Your task to perform on an android device: turn pop-ups off in chrome Image 0: 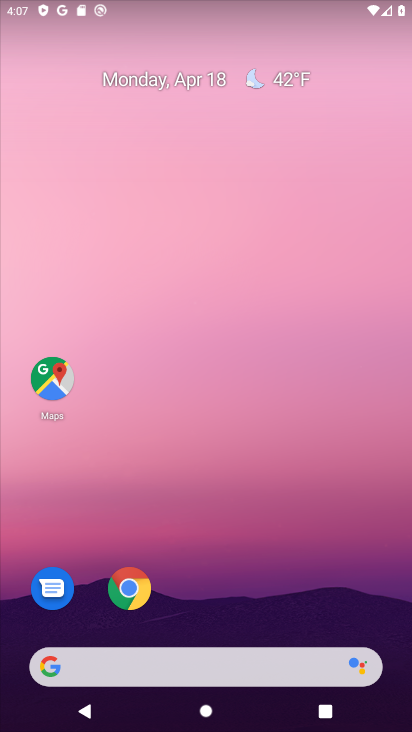
Step 0: click (125, 610)
Your task to perform on an android device: turn pop-ups off in chrome Image 1: 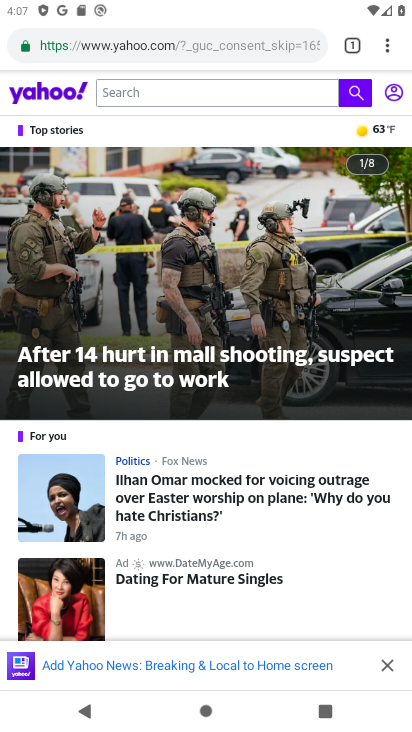
Step 1: drag from (388, 50) to (244, 553)
Your task to perform on an android device: turn pop-ups off in chrome Image 2: 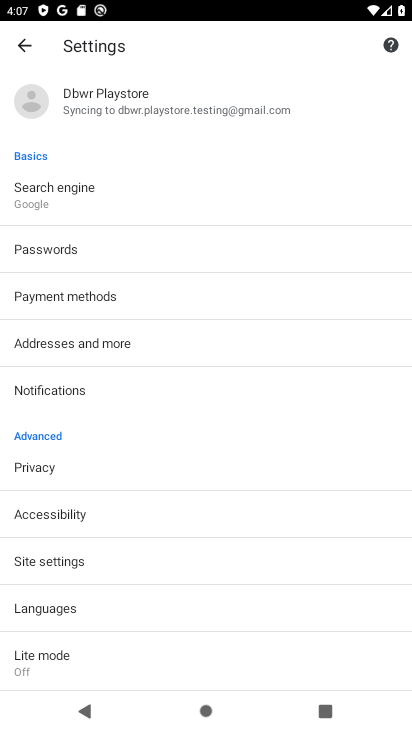
Step 2: drag from (225, 630) to (231, 381)
Your task to perform on an android device: turn pop-ups off in chrome Image 3: 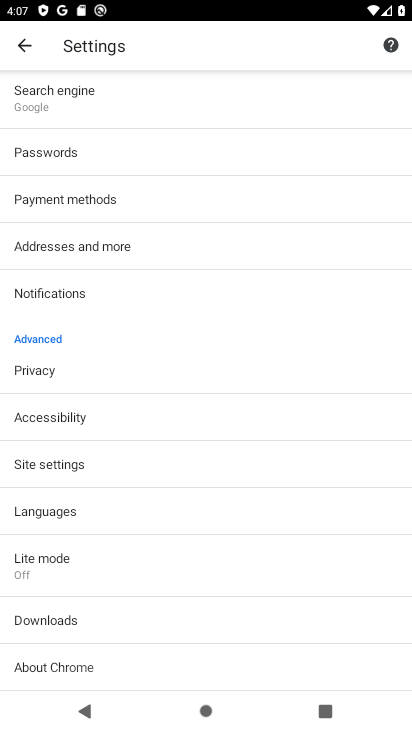
Step 3: drag from (231, 625) to (228, 439)
Your task to perform on an android device: turn pop-ups off in chrome Image 4: 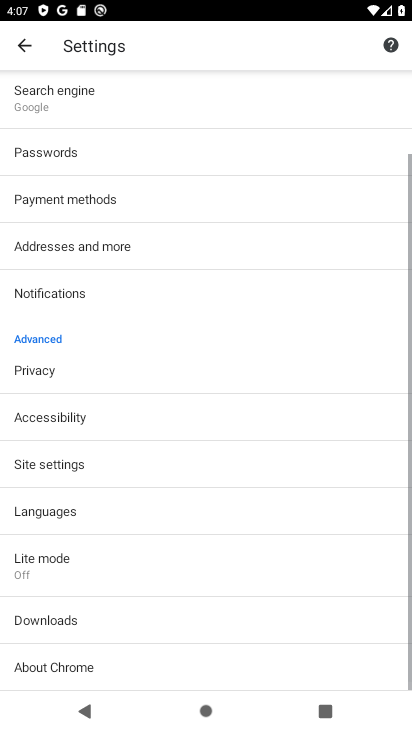
Step 4: drag from (192, 542) to (200, 481)
Your task to perform on an android device: turn pop-ups off in chrome Image 5: 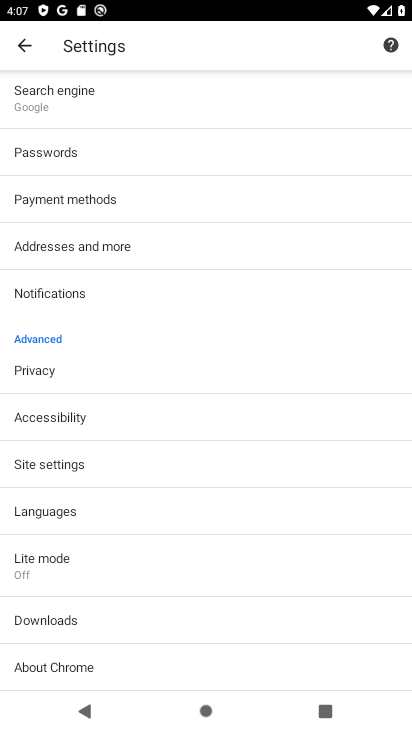
Step 5: click (38, 473)
Your task to perform on an android device: turn pop-ups off in chrome Image 6: 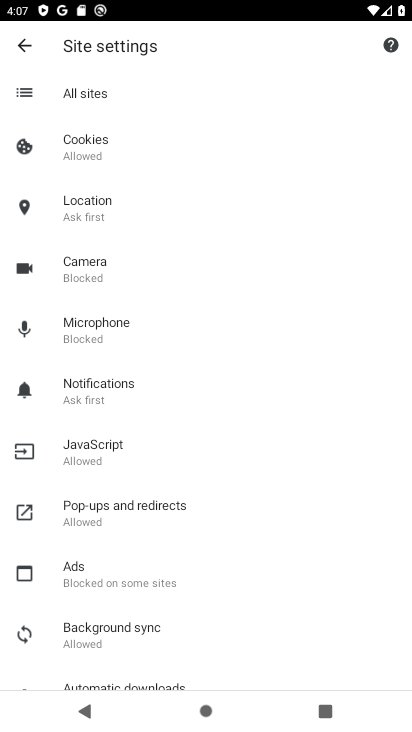
Step 6: click (143, 508)
Your task to perform on an android device: turn pop-ups off in chrome Image 7: 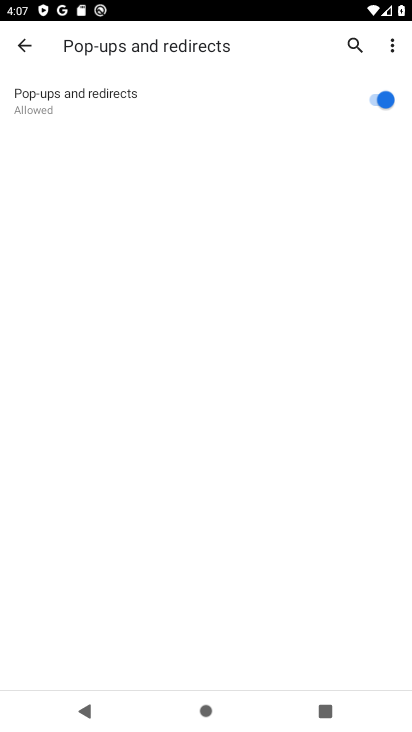
Step 7: click (391, 100)
Your task to perform on an android device: turn pop-ups off in chrome Image 8: 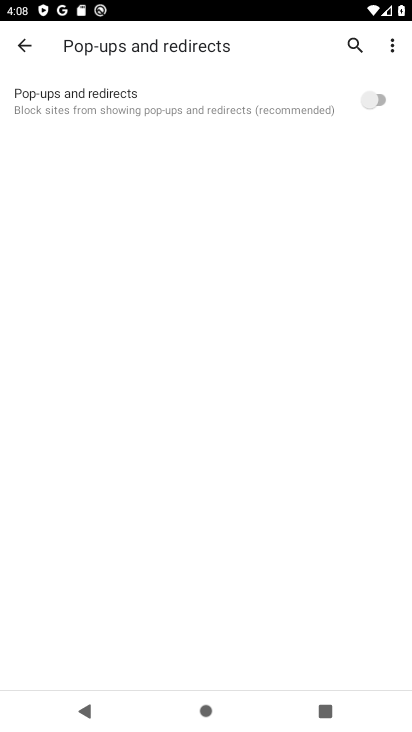
Step 8: task complete